Your task to perform on an android device: set default search engine in the chrome app Image 0: 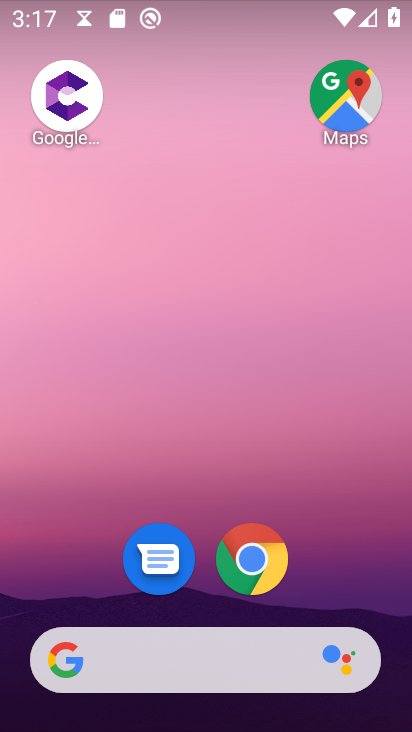
Step 0: drag from (331, 596) to (317, 330)
Your task to perform on an android device: set default search engine in the chrome app Image 1: 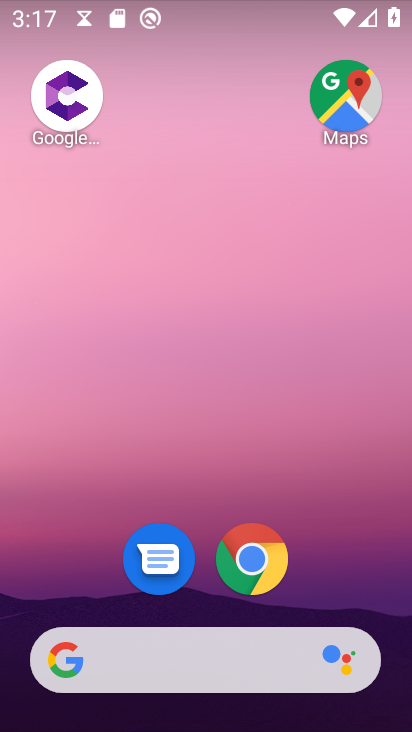
Step 1: click (241, 561)
Your task to perform on an android device: set default search engine in the chrome app Image 2: 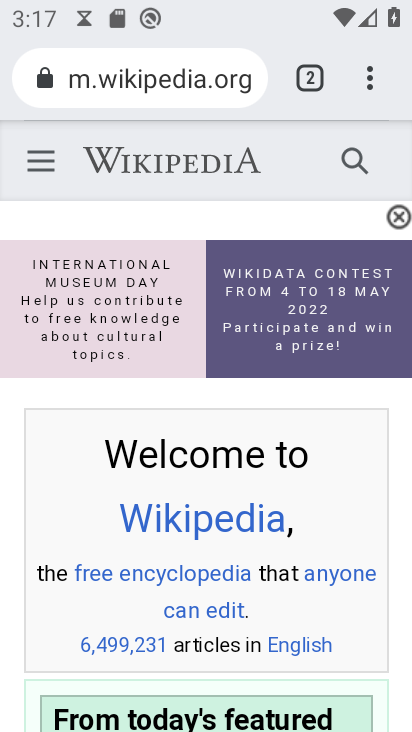
Step 2: click (344, 74)
Your task to perform on an android device: set default search engine in the chrome app Image 3: 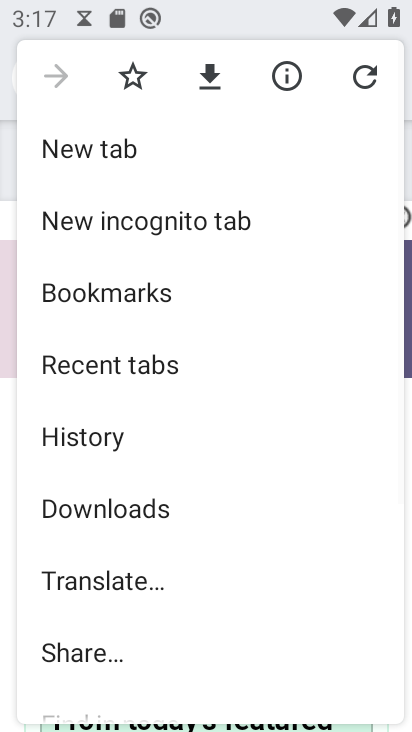
Step 3: drag from (124, 552) to (227, 301)
Your task to perform on an android device: set default search engine in the chrome app Image 4: 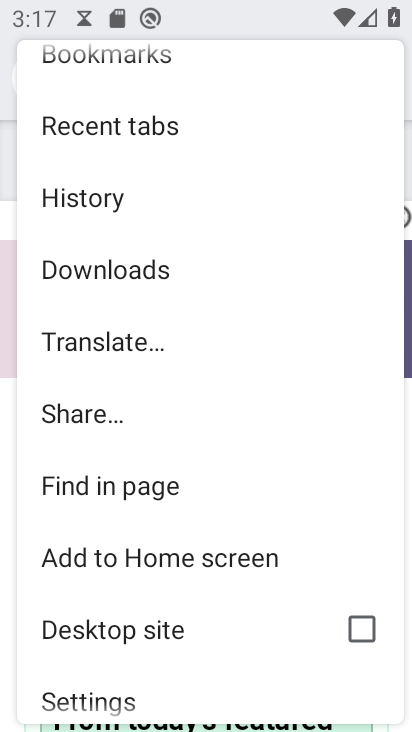
Step 4: drag from (135, 576) to (216, 364)
Your task to perform on an android device: set default search engine in the chrome app Image 5: 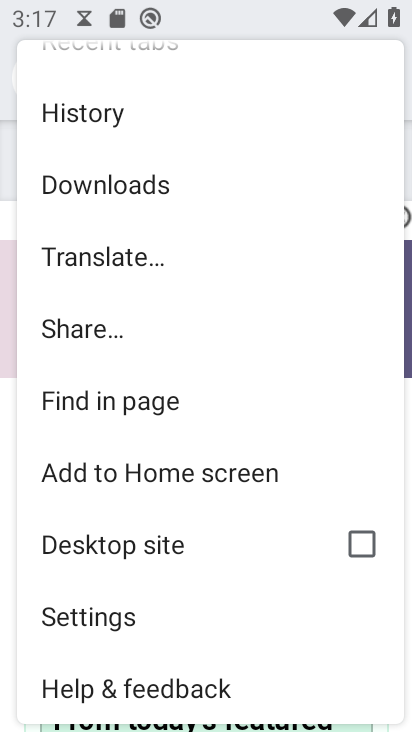
Step 5: click (105, 615)
Your task to perform on an android device: set default search engine in the chrome app Image 6: 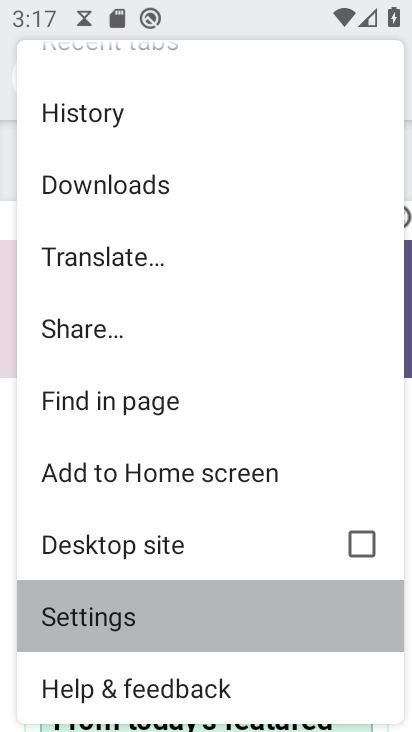
Step 6: click (106, 619)
Your task to perform on an android device: set default search engine in the chrome app Image 7: 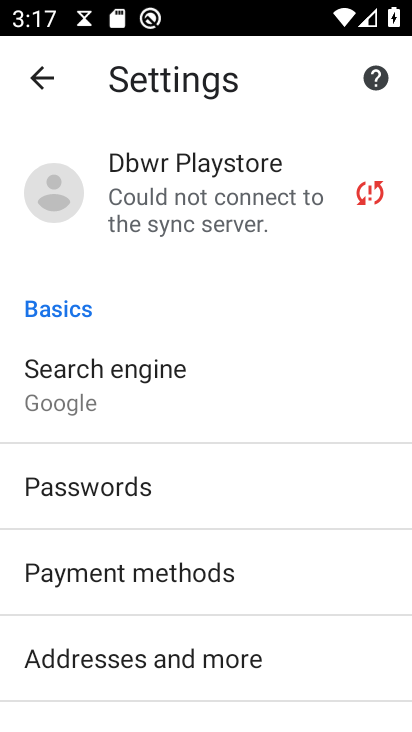
Step 7: drag from (171, 563) to (264, 204)
Your task to perform on an android device: set default search engine in the chrome app Image 8: 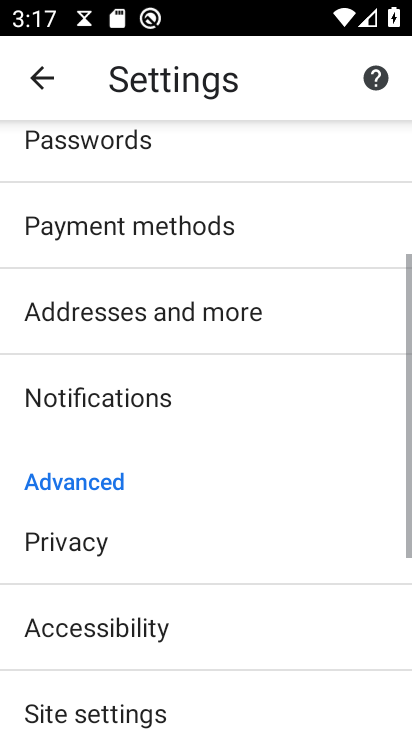
Step 8: drag from (231, 627) to (297, 315)
Your task to perform on an android device: set default search engine in the chrome app Image 9: 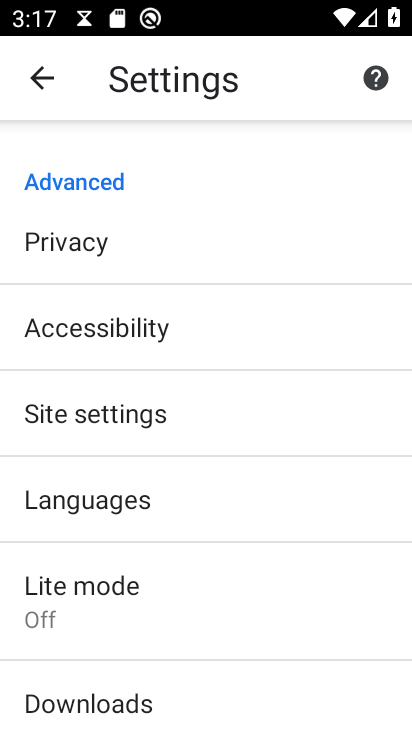
Step 9: drag from (158, 614) to (257, 382)
Your task to perform on an android device: set default search engine in the chrome app Image 10: 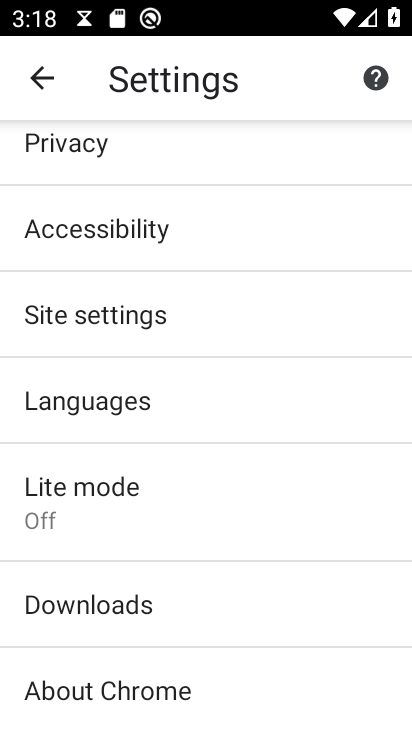
Step 10: drag from (149, 191) to (157, 285)
Your task to perform on an android device: set default search engine in the chrome app Image 11: 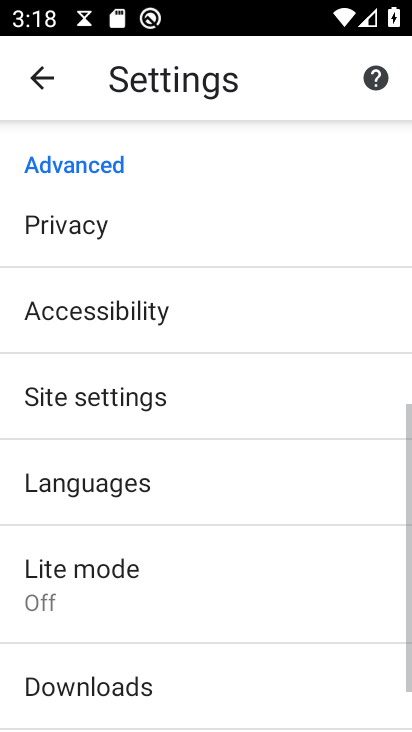
Step 11: click (115, 398)
Your task to perform on an android device: set default search engine in the chrome app Image 12: 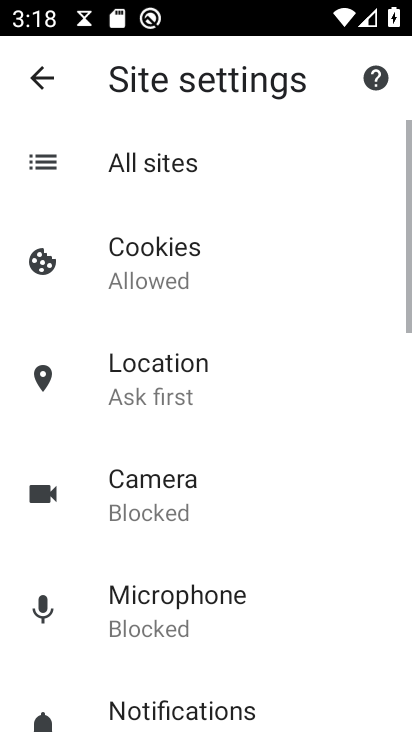
Step 12: click (121, 366)
Your task to perform on an android device: set default search engine in the chrome app Image 13: 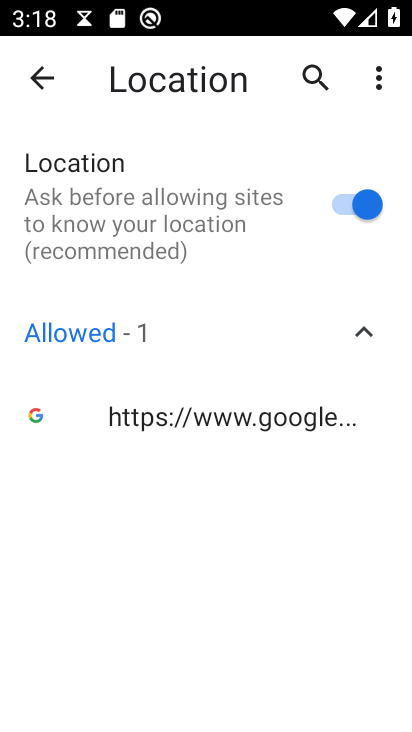
Step 13: click (351, 198)
Your task to perform on an android device: set default search engine in the chrome app Image 14: 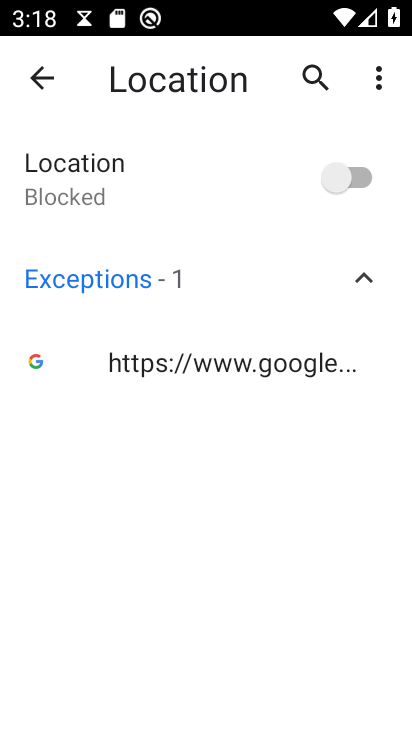
Step 14: task complete